Your task to perform on an android device: Open maps Image 0: 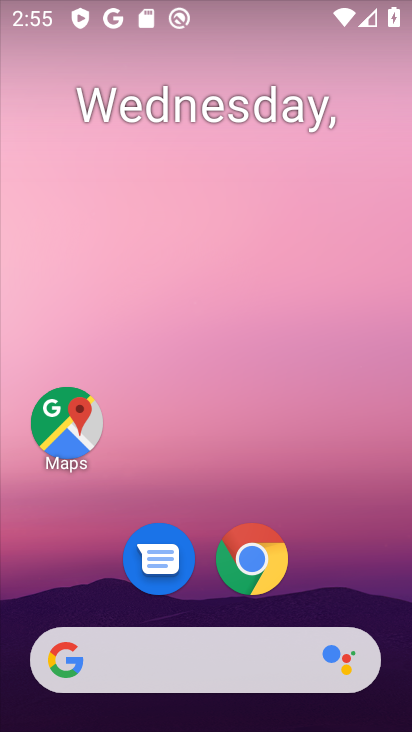
Step 0: click (81, 434)
Your task to perform on an android device: Open maps Image 1: 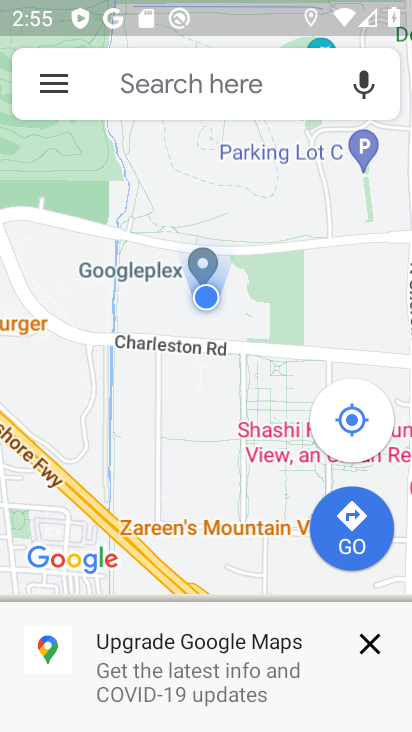
Step 1: task complete